Your task to perform on an android device: open chrome and create a bookmark for the current page Image 0: 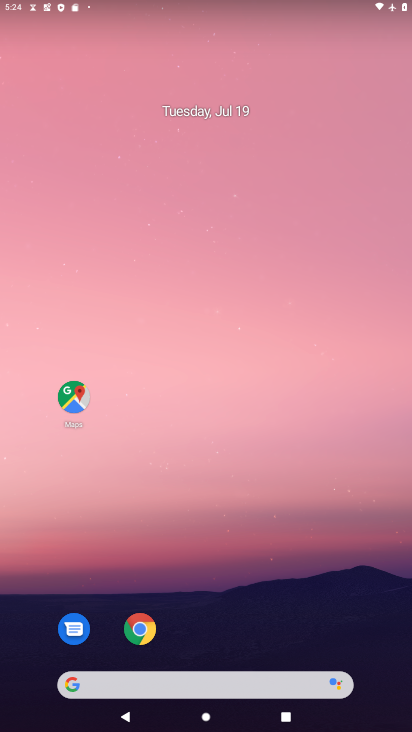
Step 0: click (401, 504)
Your task to perform on an android device: open chrome and create a bookmark for the current page Image 1: 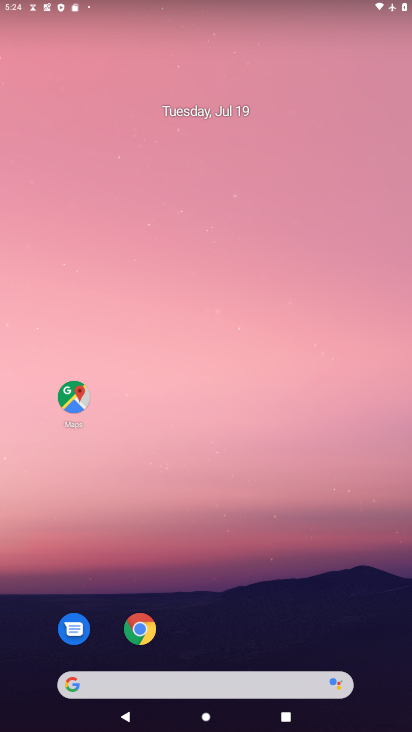
Step 1: drag from (274, 559) to (397, 24)
Your task to perform on an android device: open chrome and create a bookmark for the current page Image 2: 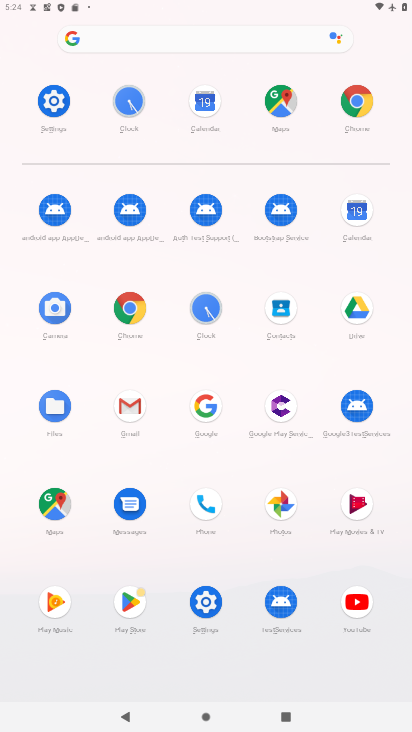
Step 2: click (356, 101)
Your task to perform on an android device: open chrome and create a bookmark for the current page Image 3: 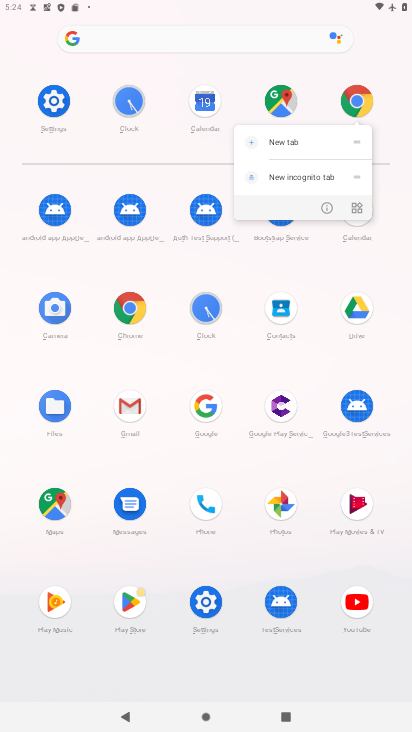
Step 3: click (358, 105)
Your task to perform on an android device: open chrome and create a bookmark for the current page Image 4: 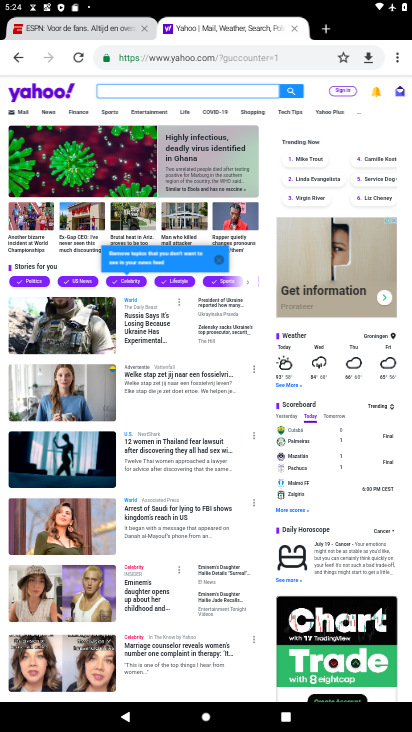
Step 4: click (340, 60)
Your task to perform on an android device: open chrome and create a bookmark for the current page Image 5: 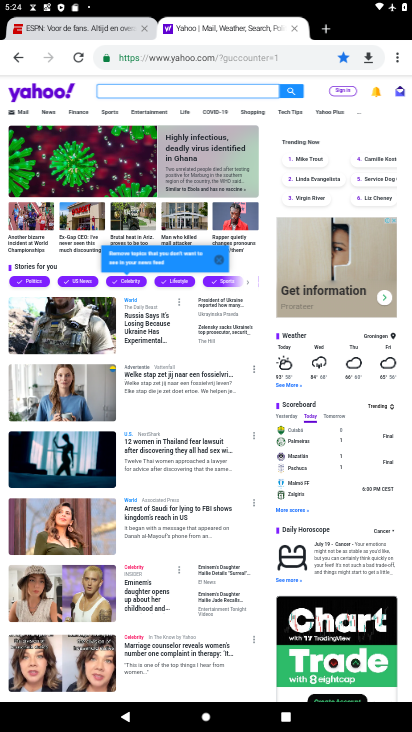
Step 5: task complete